Your task to perform on an android device: set an alarm Image 0: 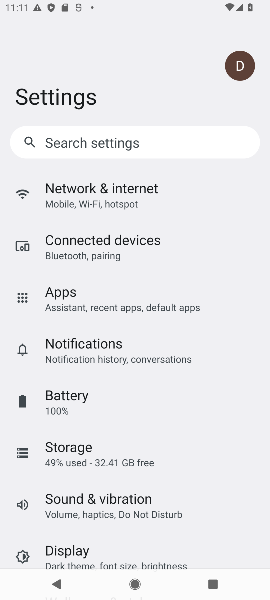
Step 0: press home button
Your task to perform on an android device: set an alarm Image 1: 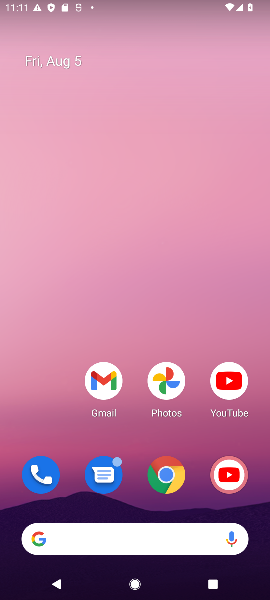
Step 1: drag from (132, 498) to (116, 25)
Your task to perform on an android device: set an alarm Image 2: 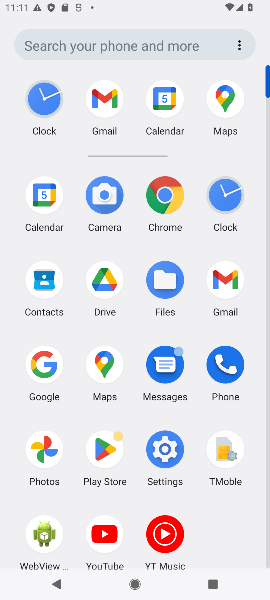
Step 2: click (222, 203)
Your task to perform on an android device: set an alarm Image 3: 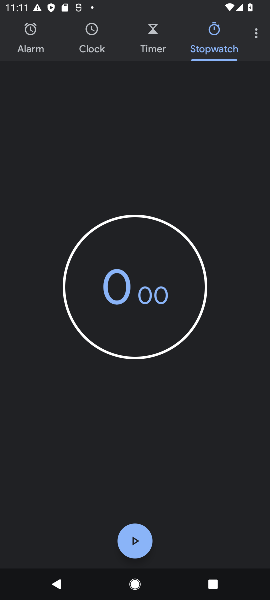
Step 3: click (41, 47)
Your task to perform on an android device: set an alarm Image 4: 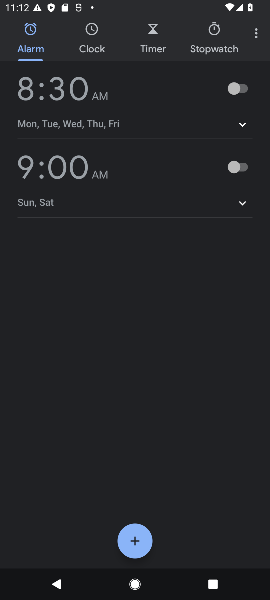
Step 4: click (248, 96)
Your task to perform on an android device: set an alarm Image 5: 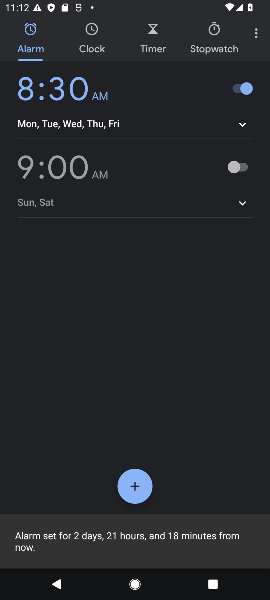
Step 5: click (241, 128)
Your task to perform on an android device: set an alarm Image 6: 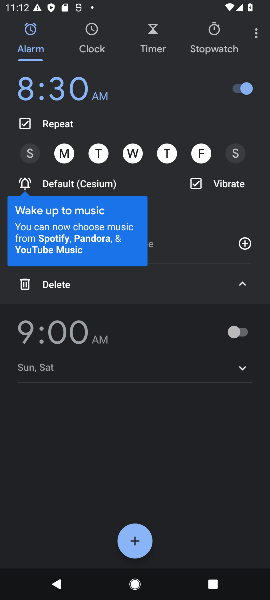
Step 6: click (101, 148)
Your task to perform on an android device: set an alarm Image 7: 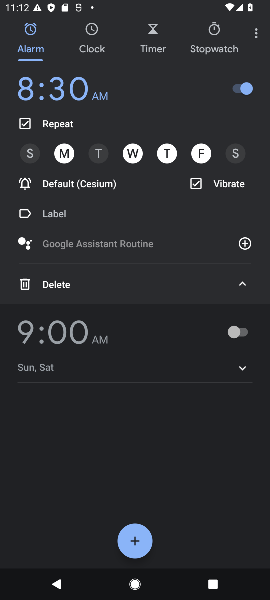
Step 7: click (131, 149)
Your task to perform on an android device: set an alarm Image 8: 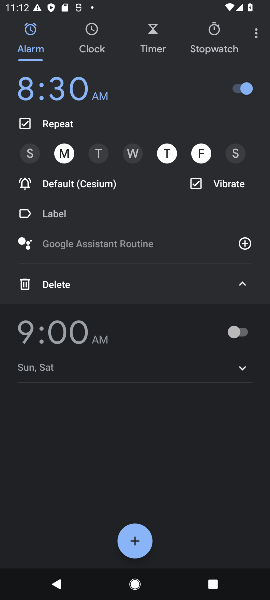
Step 8: task complete